Your task to perform on an android device: See recent photos Image 0: 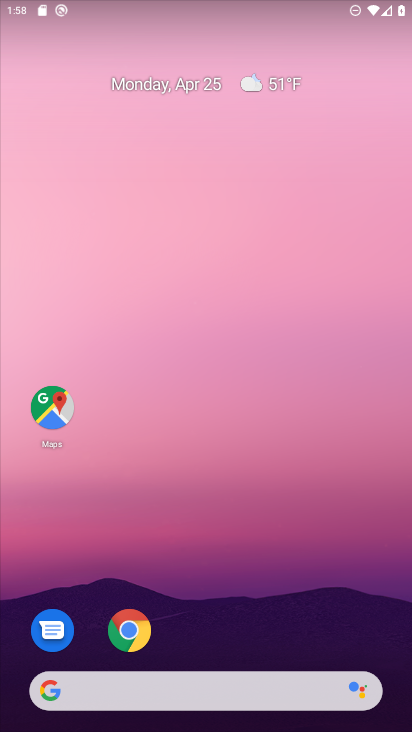
Step 0: drag from (306, 526) to (328, 116)
Your task to perform on an android device: See recent photos Image 1: 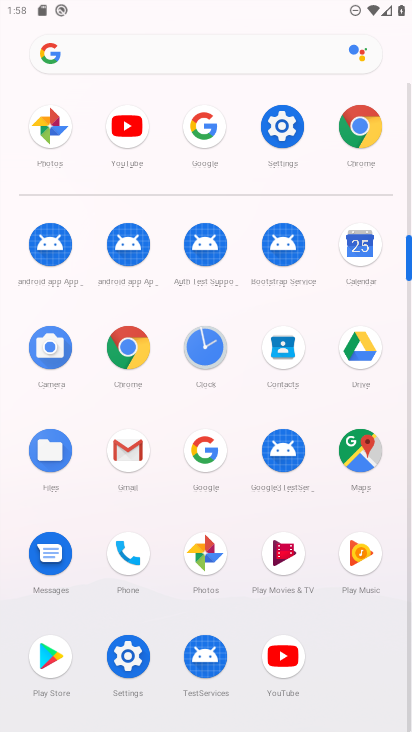
Step 1: click (34, 134)
Your task to perform on an android device: See recent photos Image 2: 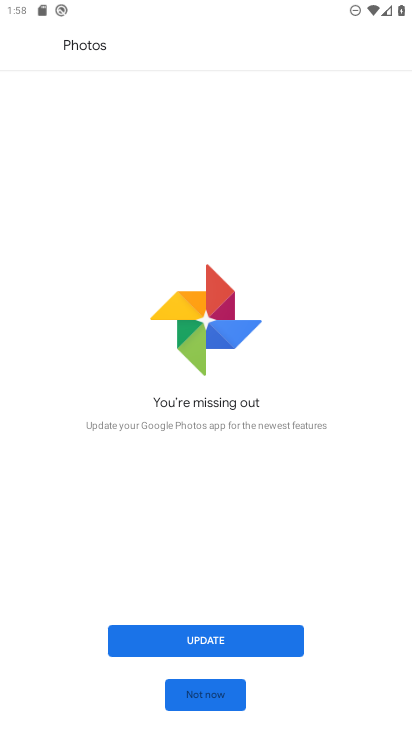
Step 2: click (212, 637)
Your task to perform on an android device: See recent photos Image 3: 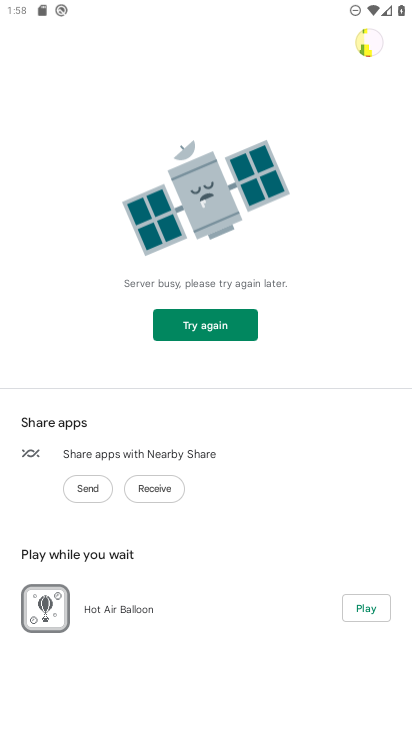
Step 3: click (185, 327)
Your task to perform on an android device: See recent photos Image 4: 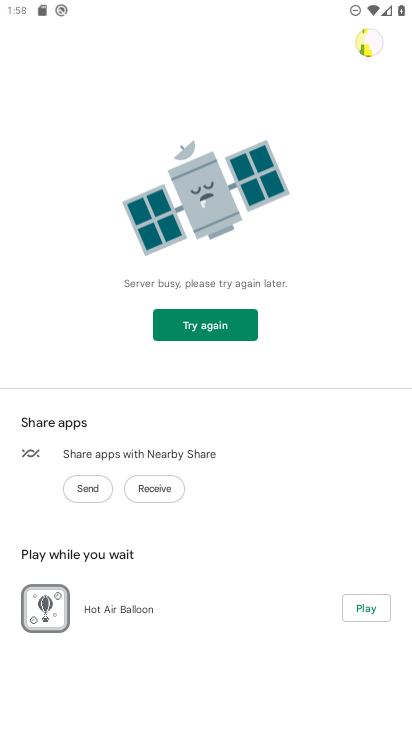
Step 4: click (185, 325)
Your task to perform on an android device: See recent photos Image 5: 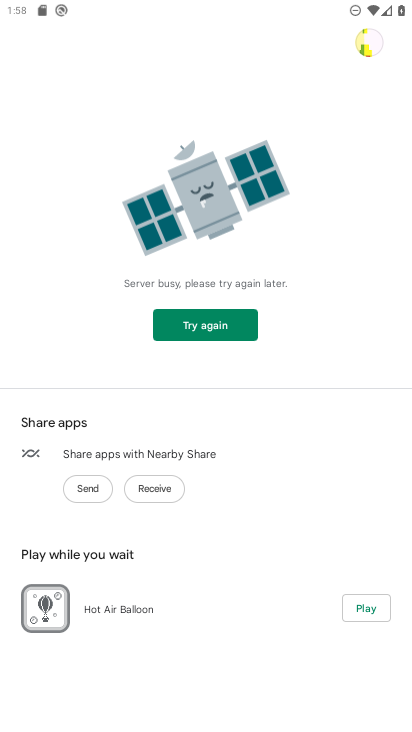
Step 5: click (185, 323)
Your task to perform on an android device: See recent photos Image 6: 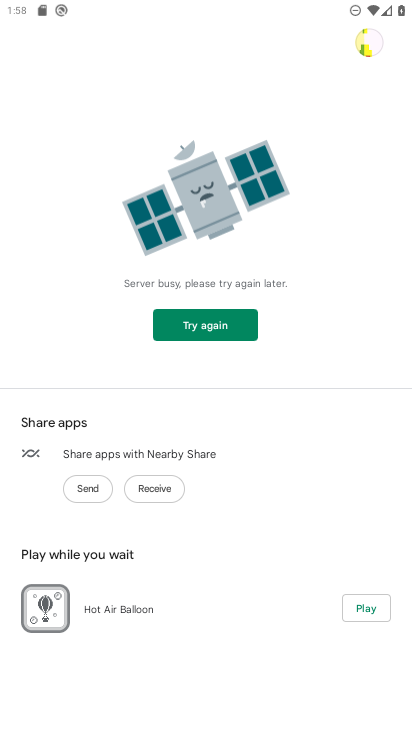
Step 6: click (185, 322)
Your task to perform on an android device: See recent photos Image 7: 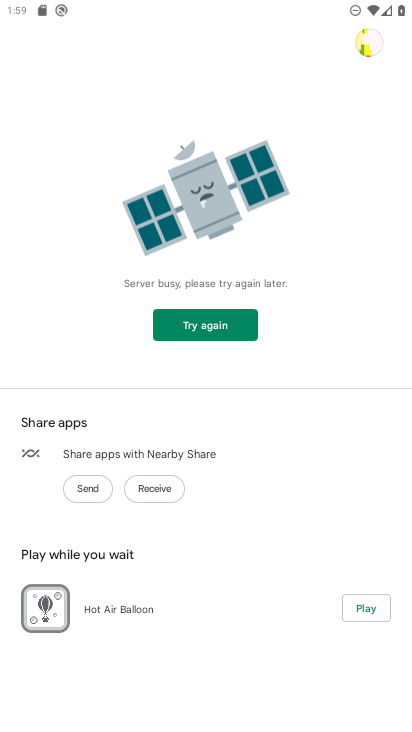
Step 7: click (185, 322)
Your task to perform on an android device: See recent photos Image 8: 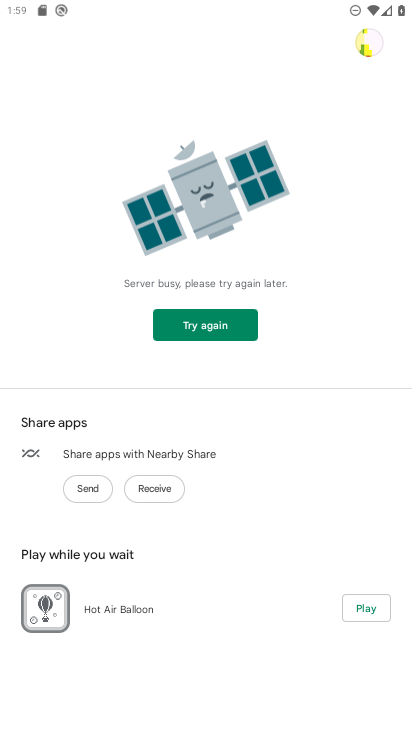
Step 8: click (194, 321)
Your task to perform on an android device: See recent photos Image 9: 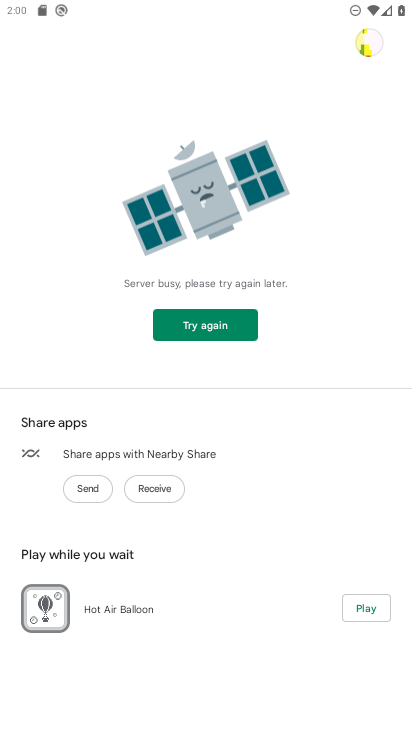
Step 9: task complete